Your task to perform on an android device: turn on javascript in the chrome app Image 0: 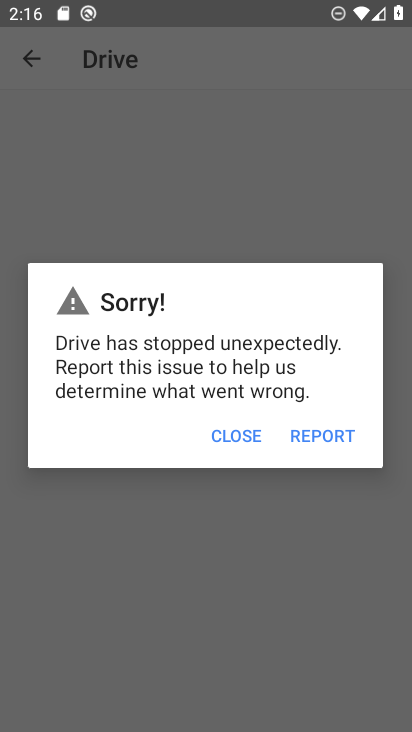
Step 0: press home button
Your task to perform on an android device: turn on javascript in the chrome app Image 1: 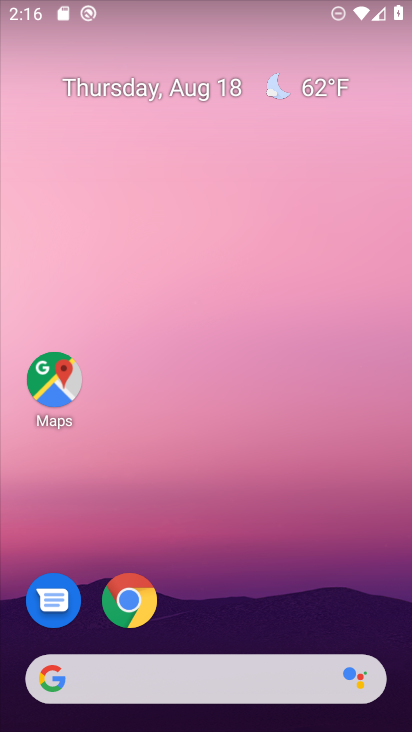
Step 1: click (130, 602)
Your task to perform on an android device: turn on javascript in the chrome app Image 2: 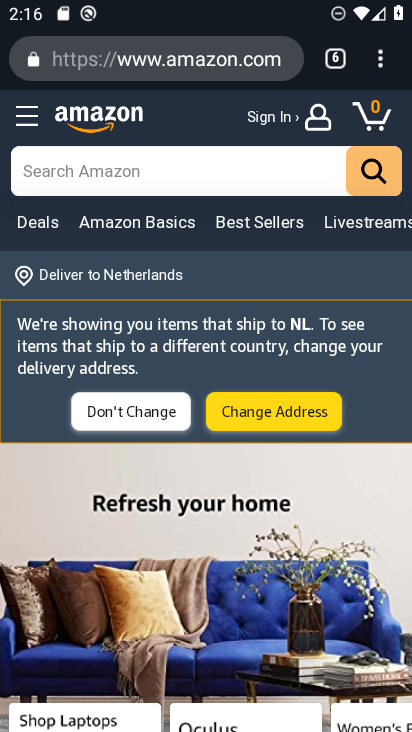
Step 2: click (376, 57)
Your task to perform on an android device: turn on javascript in the chrome app Image 3: 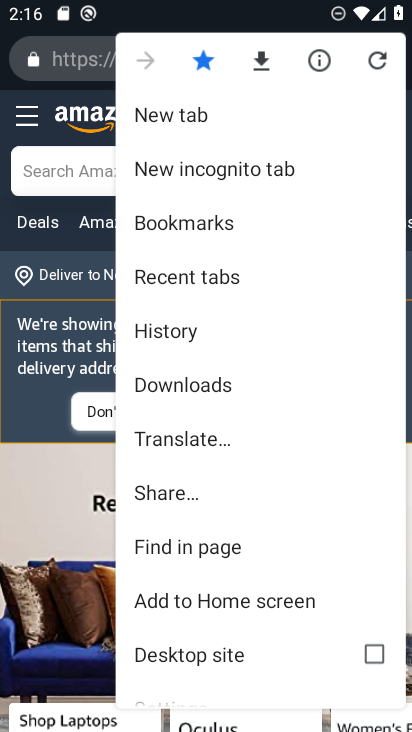
Step 3: drag from (270, 493) to (201, 249)
Your task to perform on an android device: turn on javascript in the chrome app Image 4: 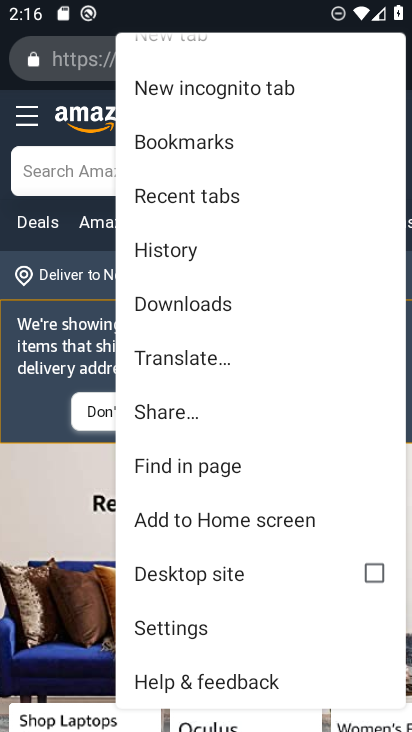
Step 4: click (182, 627)
Your task to perform on an android device: turn on javascript in the chrome app Image 5: 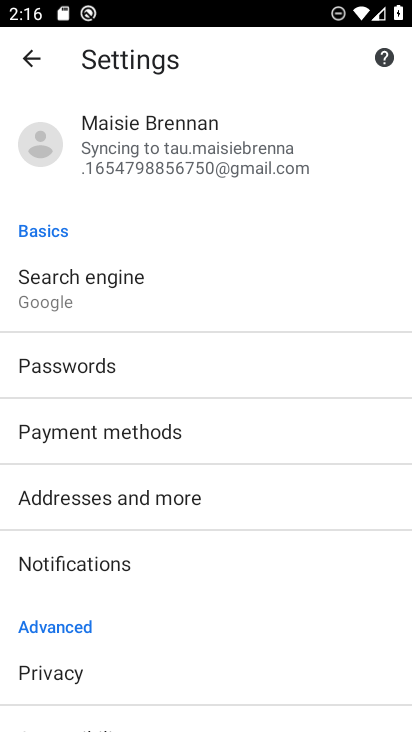
Step 5: drag from (173, 588) to (143, 376)
Your task to perform on an android device: turn on javascript in the chrome app Image 6: 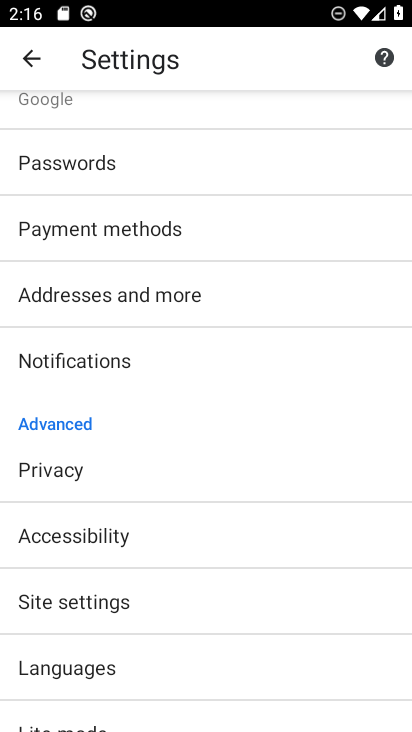
Step 6: drag from (152, 625) to (115, 418)
Your task to perform on an android device: turn on javascript in the chrome app Image 7: 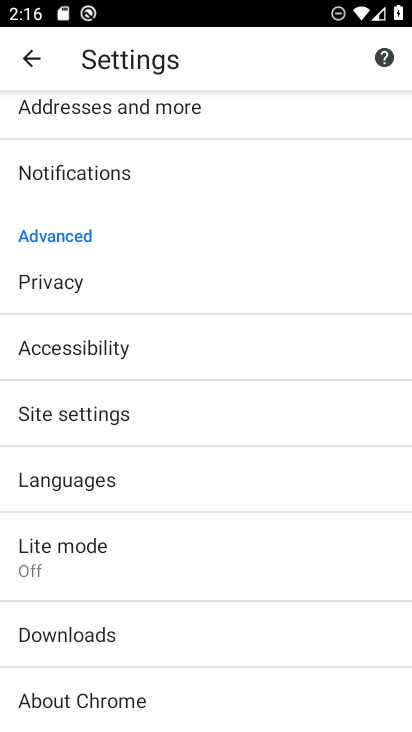
Step 7: click (80, 416)
Your task to perform on an android device: turn on javascript in the chrome app Image 8: 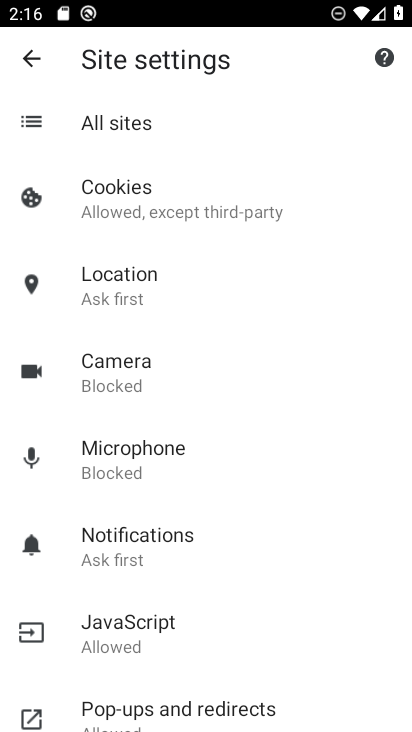
Step 8: click (143, 618)
Your task to perform on an android device: turn on javascript in the chrome app Image 9: 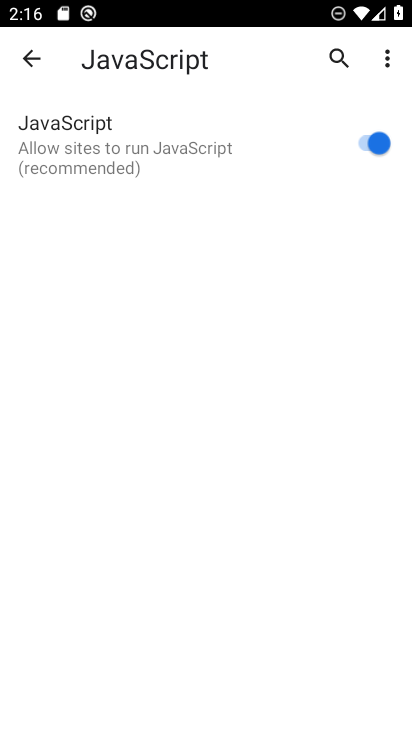
Step 9: task complete